Your task to perform on an android device: Open the stopwatch Image 0: 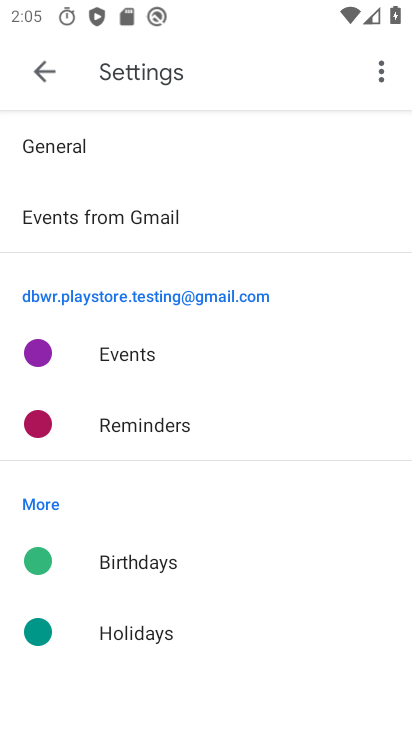
Step 0: press home button
Your task to perform on an android device: Open the stopwatch Image 1: 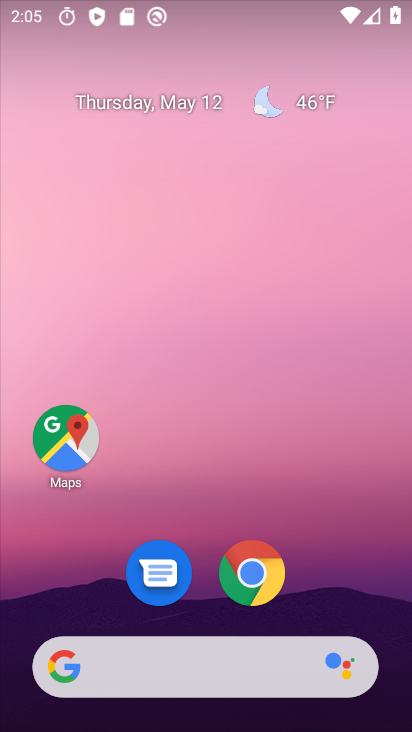
Step 1: drag from (190, 602) to (219, 70)
Your task to perform on an android device: Open the stopwatch Image 2: 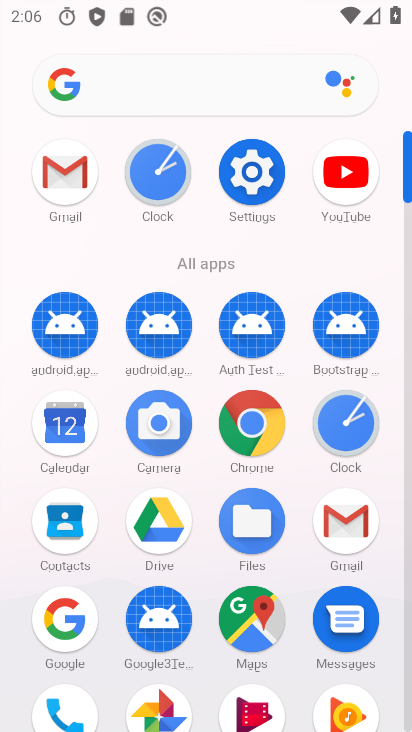
Step 2: click (176, 155)
Your task to perform on an android device: Open the stopwatch Image 3: 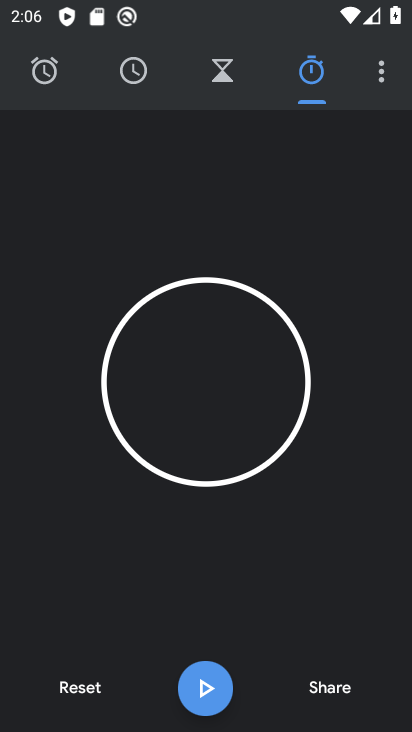
Step 3: task complete